Your task to perform on an android device: turn on the 12-hour format for clock Image 0: 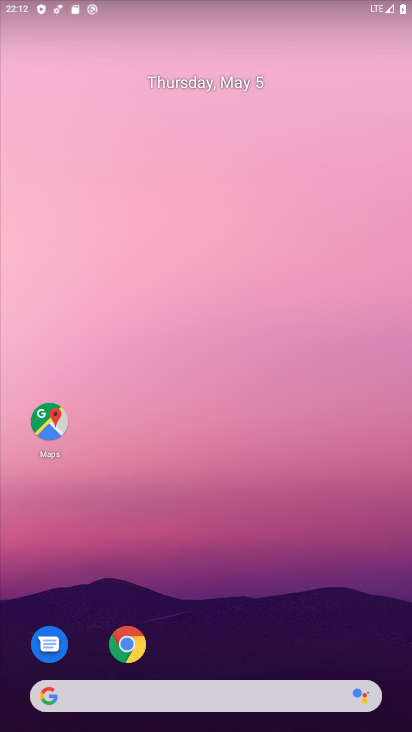
Step 0: drag from (228, 668) to (156, 25)
Your task to perform on an android device: turn on the 12-hour format for clock Image 1: 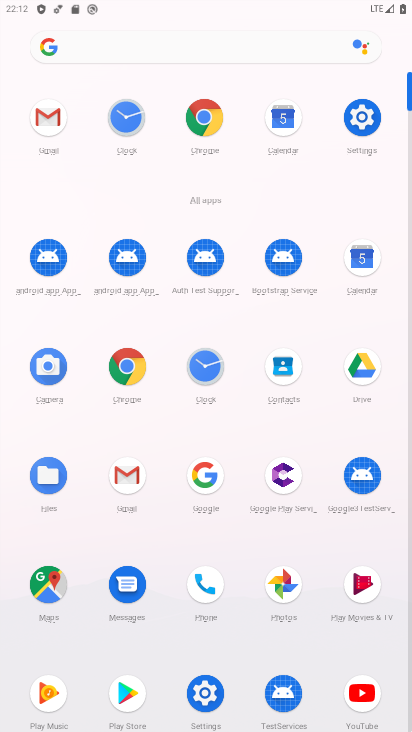
Step 1: click (208, 367)
Your task to perform on an android device: turn on the 12-hour format for clock Image 2: 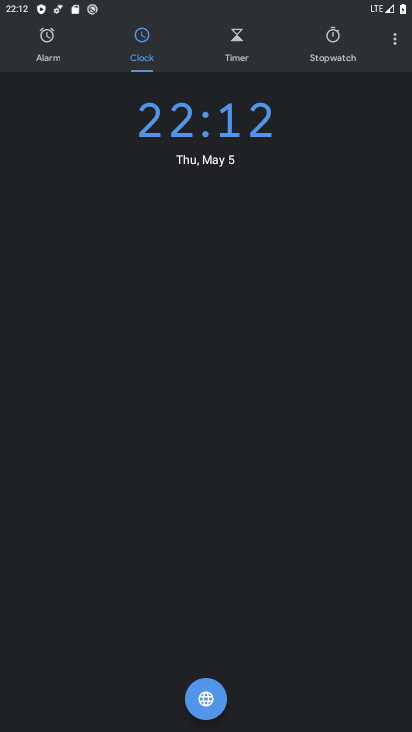
Step 2: click (387, 45)
Your task to perform on an android device: turn on the 12-hour format for clock Image 3: 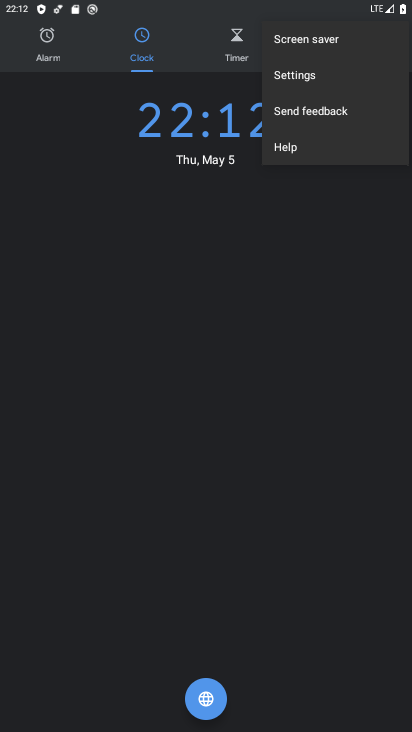
Step 3: click (299, 73)
Your task to perform on an android device: turn on the 12-hour format for clock Image 4: 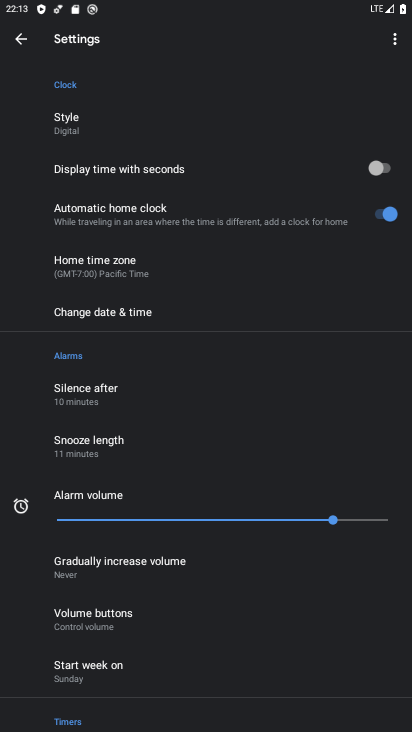
Step 4: click (96, 323)
Your task to perform on an android device: turn on the 12-hour format for clock Image 5: 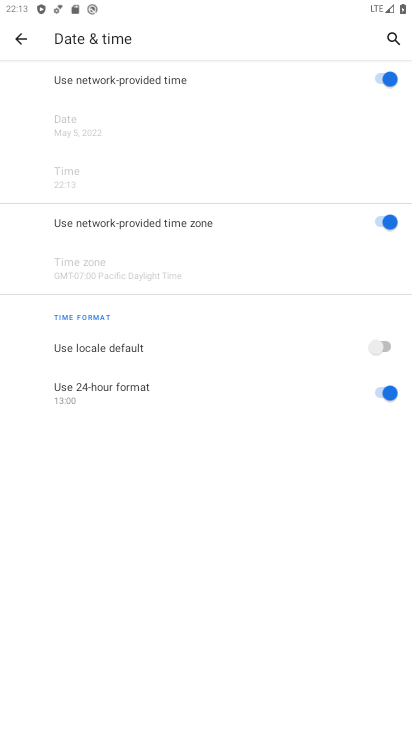
Step 5: click (372, 391)
Your task to perform on an android device: turn on the 12-hour format for clock Image 6: 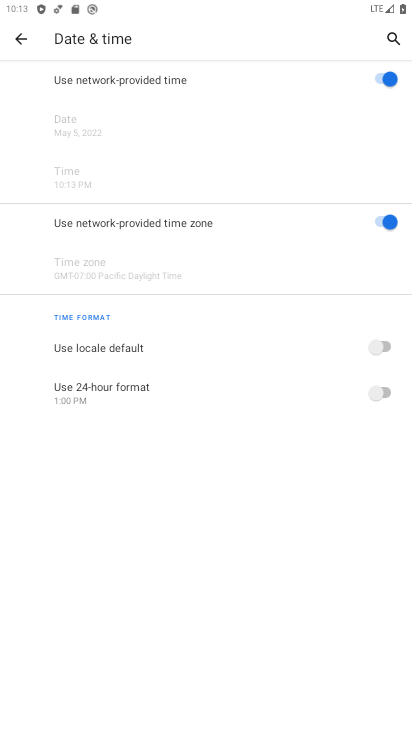
Step 6: task complete